Your task to perform on an android device: Open the web browser Image 0: 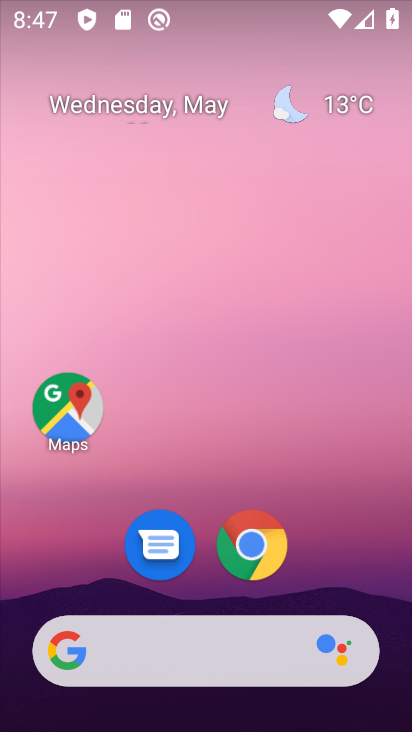
Step 0: drag from (263, 214) to (243, 44)
Your task to perform on an android device: Open the web browser Image 1: 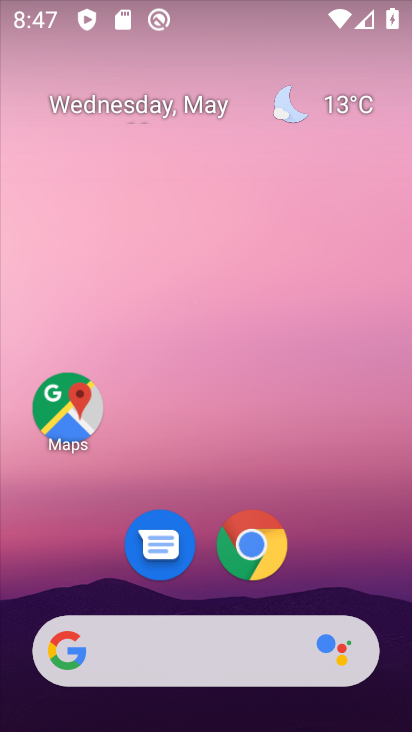
Step 1: drag from (329, 543) to (225, 25)
Your task to perform on an android device: Open the web browser Image 2: 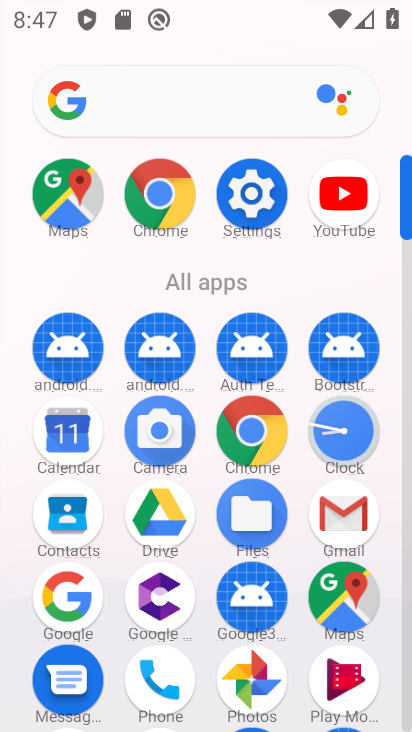
Step 2: drag from (20, 510) to (27, 190)
Your task to perform on an android device: Open the web browser Image 3: 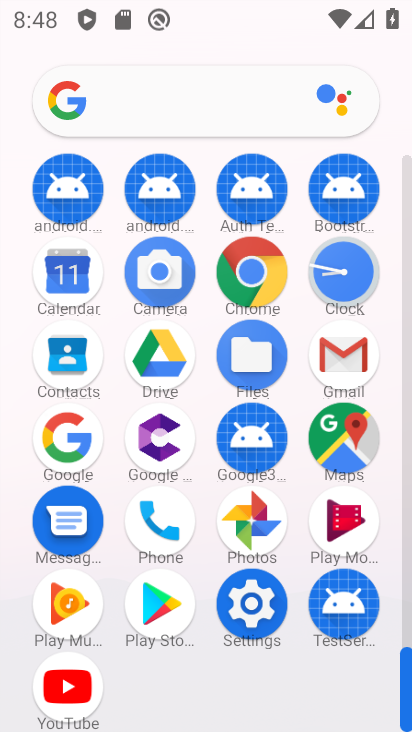
Step 3: click (248, 269)
Your task to perform on an android device: Open the web browser Image 4: 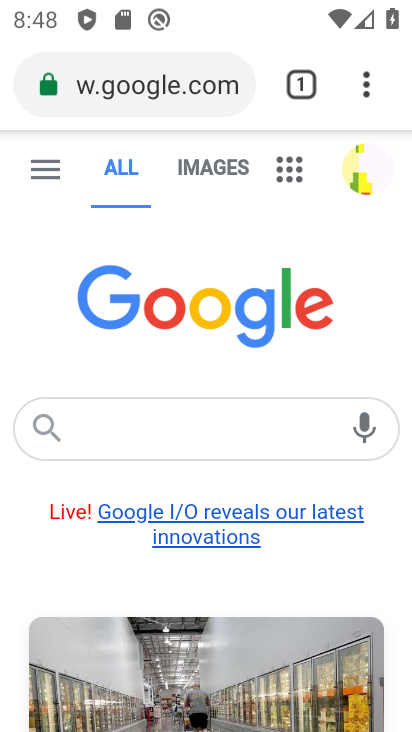
Step 4: task complete